Your task to perform on an android device: Open Google Maps and go to "Timeline" Image 0: 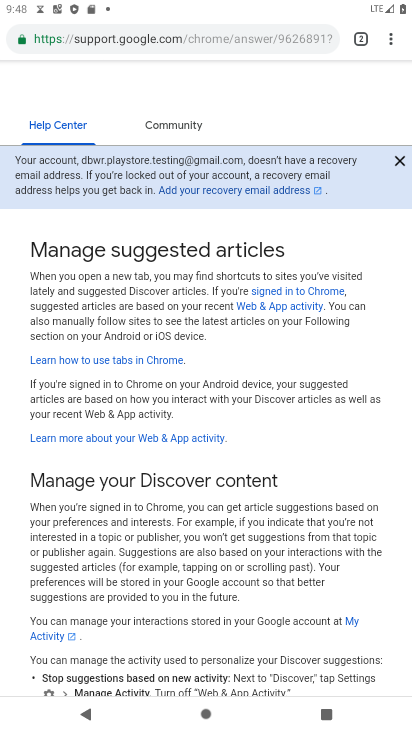
Step 0: press home button
Your task to perform on an android device: Open Google Maps and go to "Timeline" Image 1: 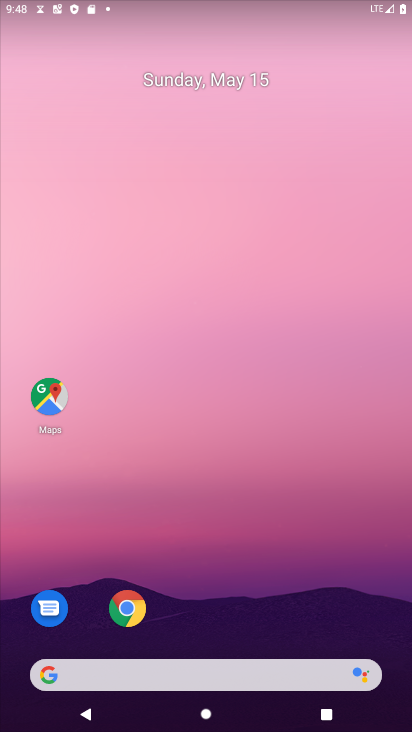
Step 1: click (55, 389)
Your task to perform on an android device: Open Google Maps and go to "Timeline" Image 2: 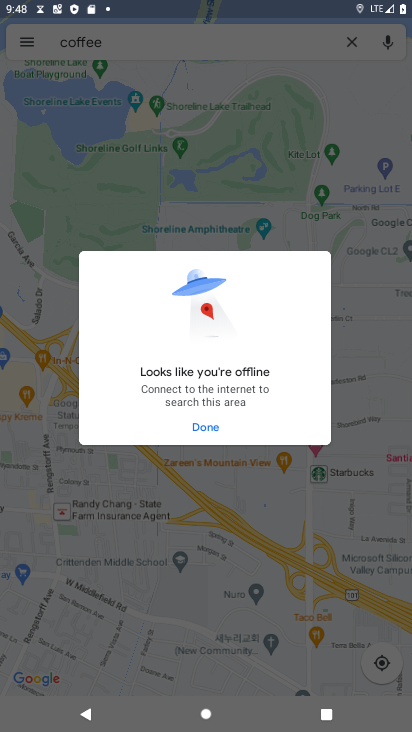
Step 2: press back button
Your task to perform on an android device: Open Google Maps and go to "Timeline" Image 3: 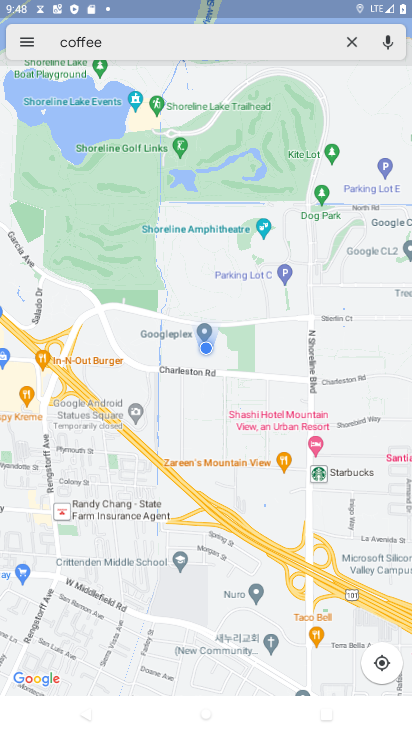
Step 3: click (19, 48)
Your task to perform on an android device: Open Google Maps and go to "Timeline" Image 4: 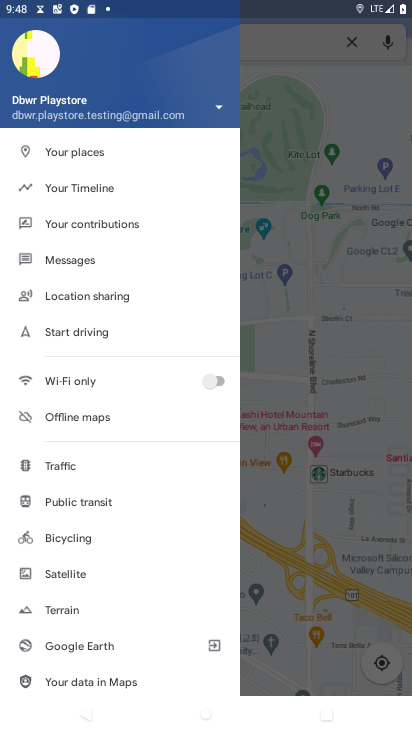
Step 4: click (74, 194)
Your task to perform on an android device: Open Google Maps and go to "Timeline" Image 5: 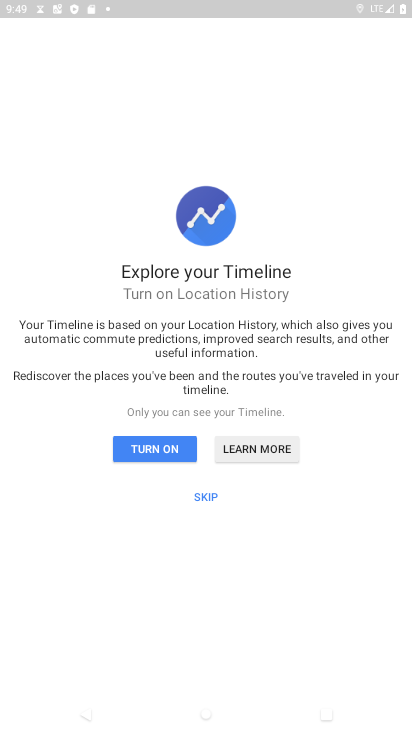
Step 5: click (194, 501)
Your task to perform on an android device: Open Google Maps and go to "Timeline" Image 6: 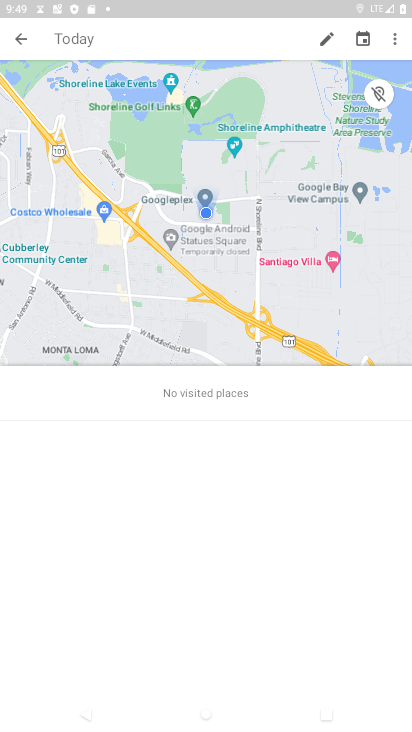
Step 6: task complete